Your task to perform on an android device: open app "Lyft - Rideshare, Bikes, Scooters & Transit" (install if not already installed) Image 0: 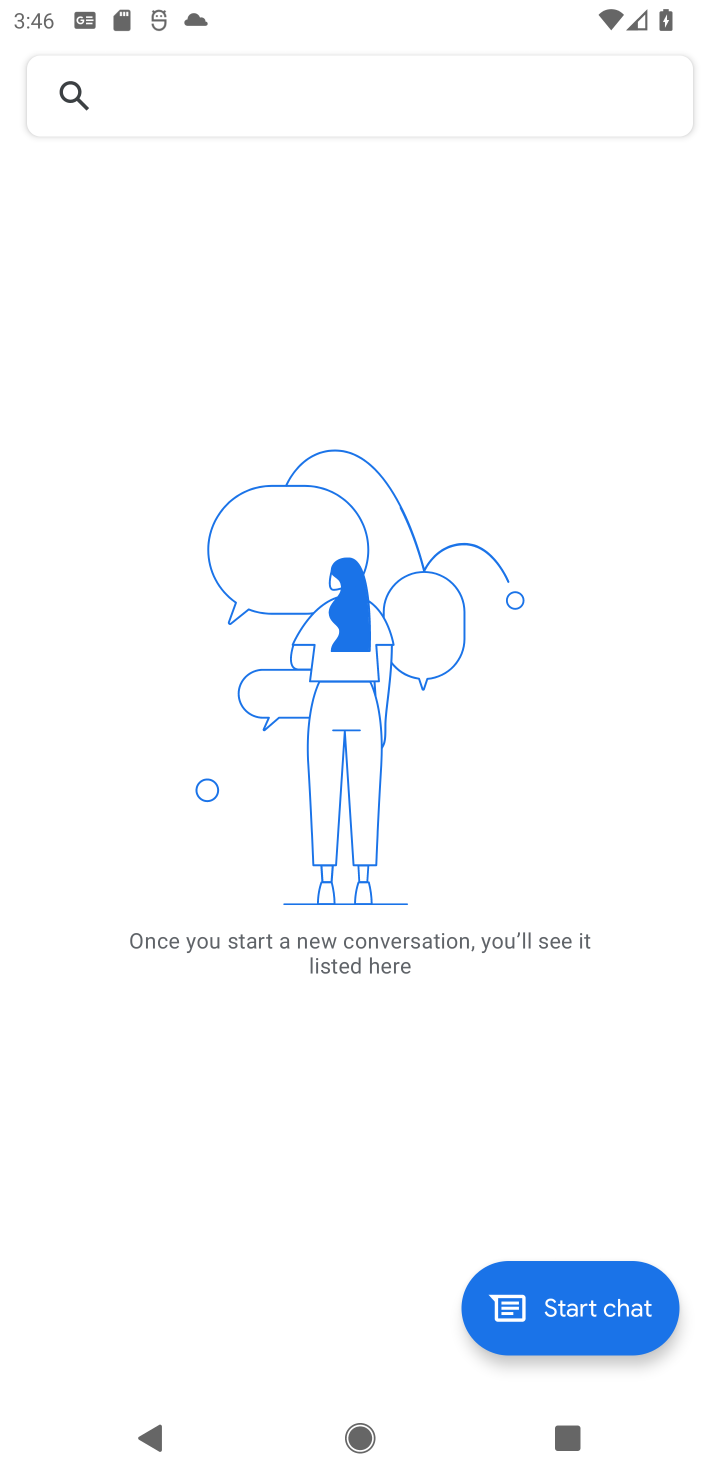
Step 0: press home button
Your task to perform on an android device: open app "Lyft - Rideshare, Bikes, Scooters & Transit" (install if not already installed) Image 1: 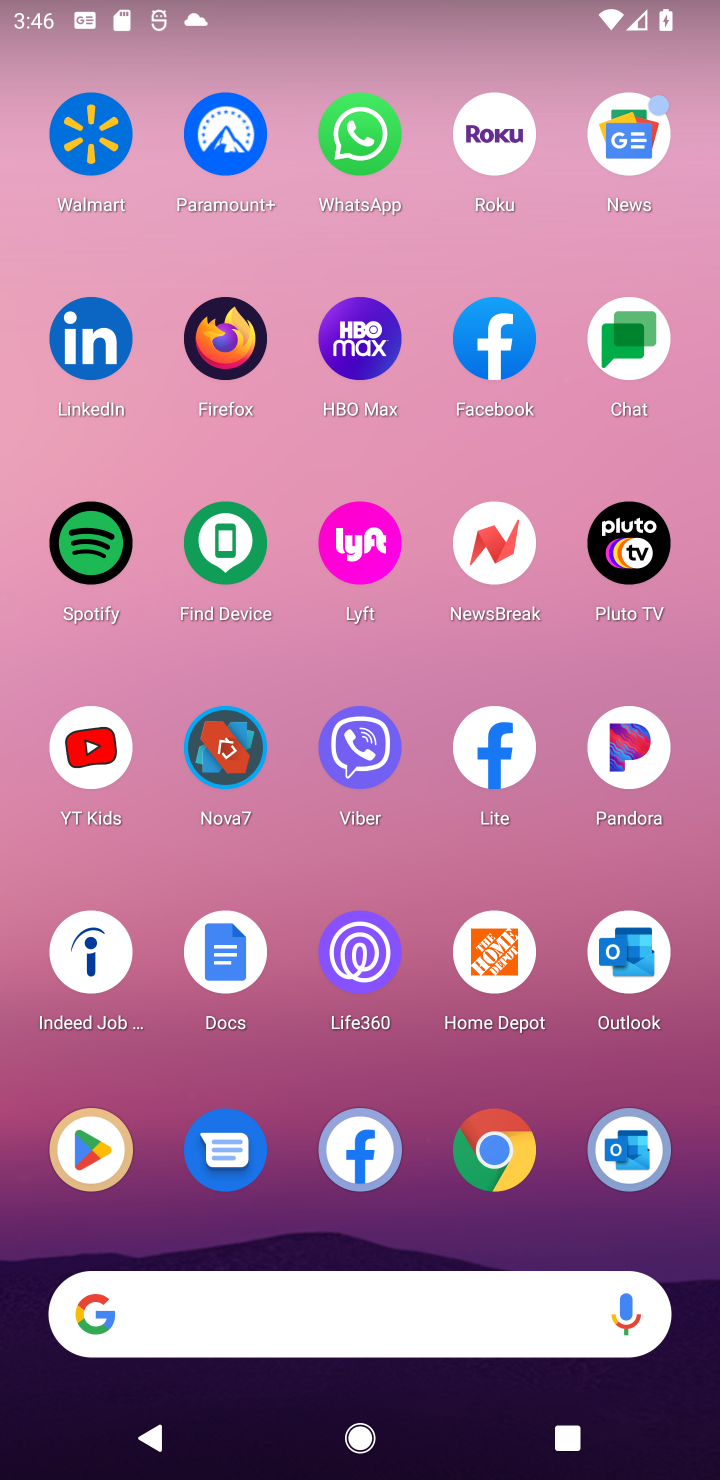
Step 1: click (360, 593)
Your task to perform on an android device: open app "Lyft - Rideshare, Bikes, Scooters & Transit" (install if not already installed) Image 2: 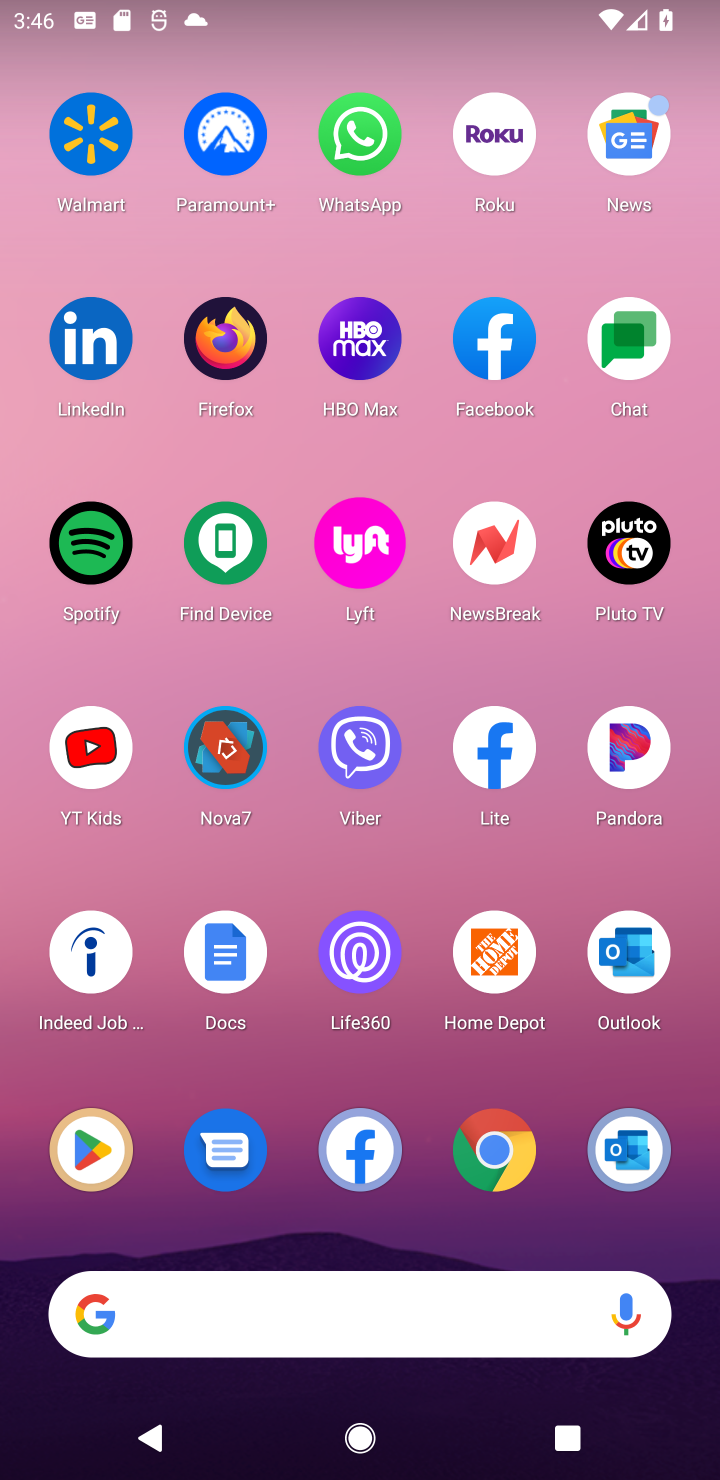
Step 2: task complete